Your task to perform on an android device: create a new album in the google photos Image 0: 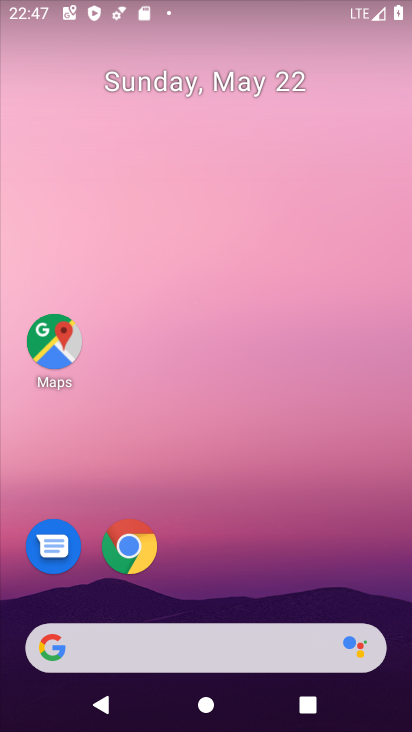
Step 0: drag from (207, 643) to (238, 26)
Your task to perform on an android device: create a new album in the google photos Image 1: 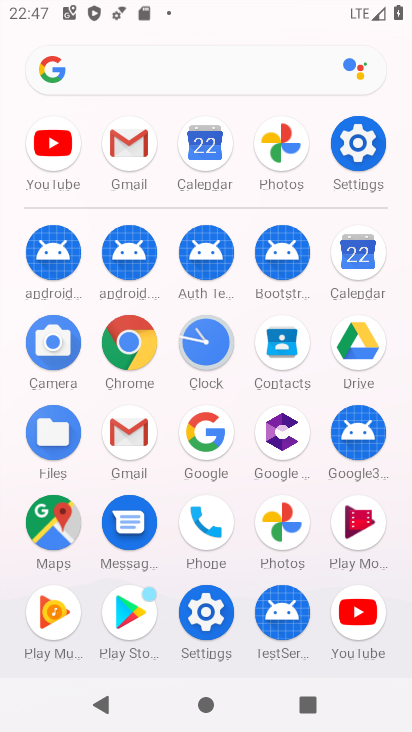
Step 1: click (271, 532)
Your task to perform on an android device: create a new album in the google photos Image 2: 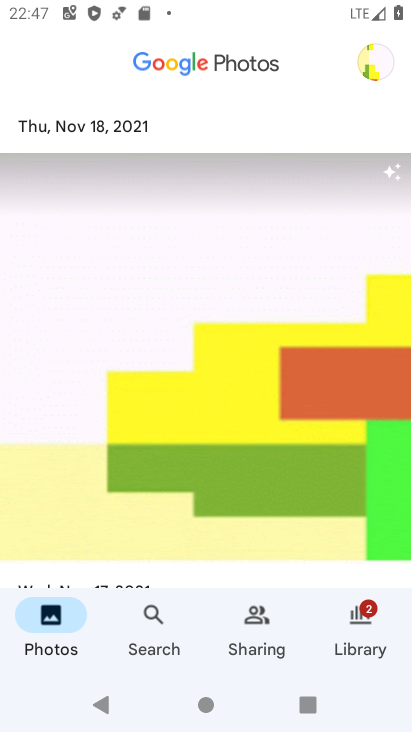
Step 2: press back button
Your task to perform on an android device: create a new album in the google photos Image 3: 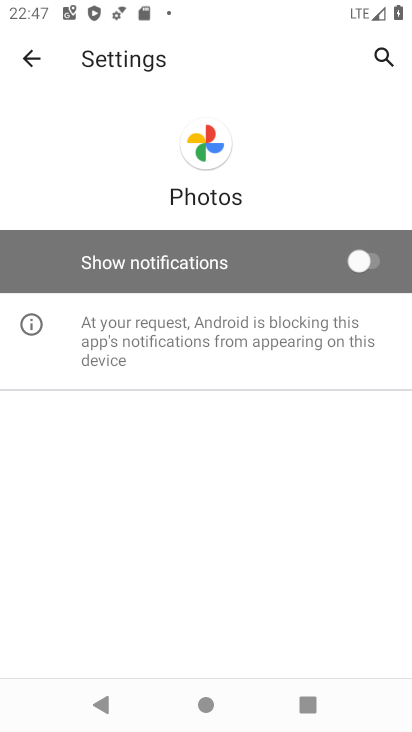
Step 3: press home button
Your task to perform on an android device: create a new album in the google photos Image 4: 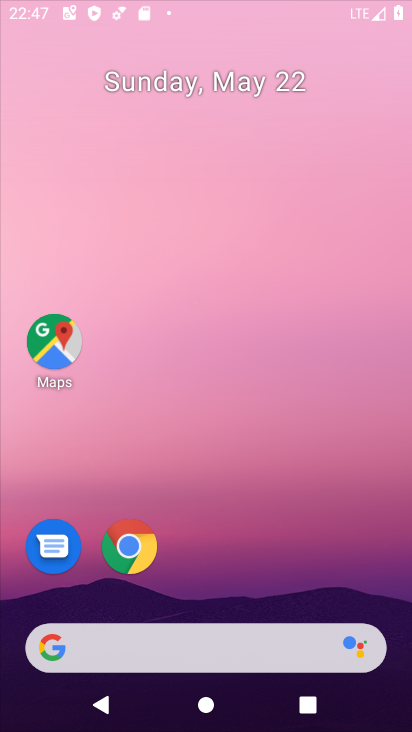
Step 4: drag from (167, 632) to (291, 94)
Your task to perform on an android device: create a new album in the google photos Image 5: 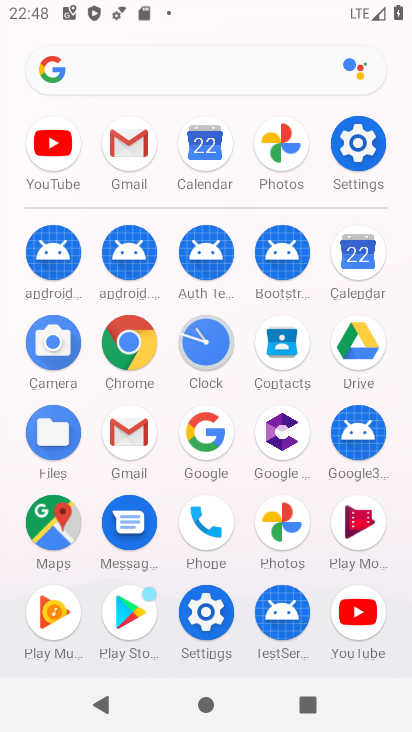
Step 5: click (278, 509)
Your task to perform on an android device: create a new album in the google photos Image 6: 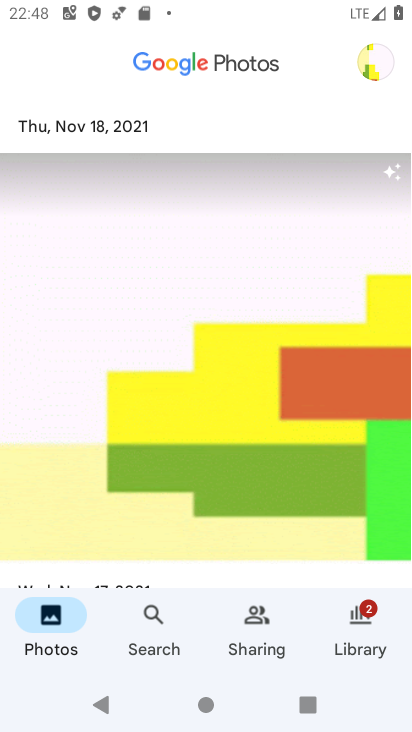
Step 6: click (353, 613)
Your task to perform on an android device: create a new album in the google photos Image 7: 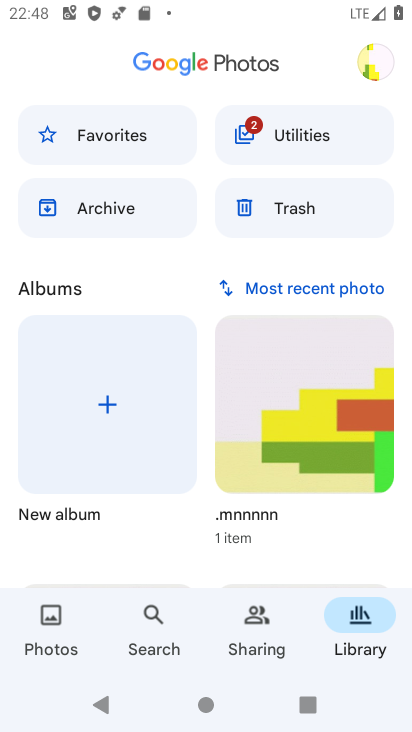
Step 7: click (108, 408)
Your task to perform on an android device: create a new album in the google photos Image 8: 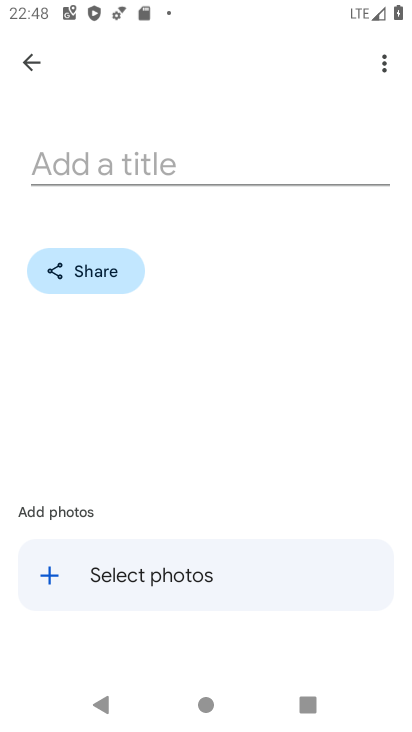
Step 8: click (133, 150)
Your task to perform on an android device: create a new album in the google photos Image 9: 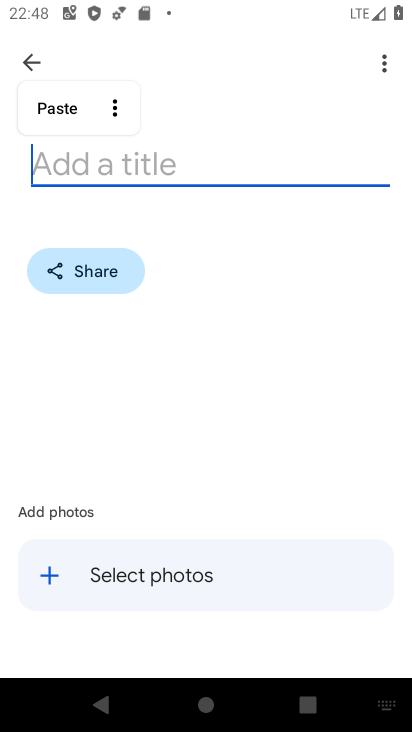
Step 9: type "jhknh"
Your task to perform on an android device: create a new album in the google photos Image 10: 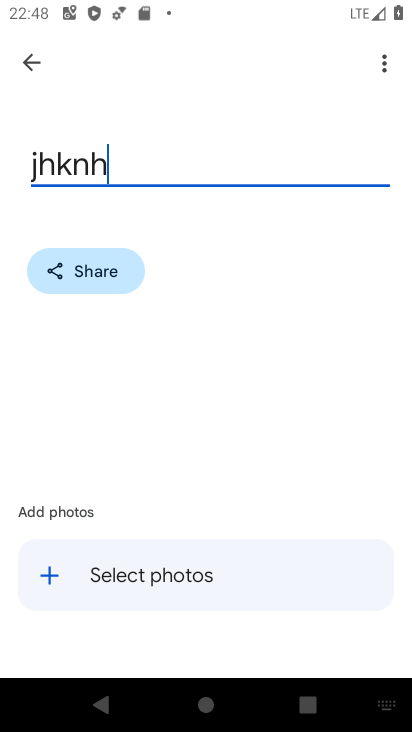
Step 10: click (44, 570)
Your task to perform on an android device: create a new album in the google photos Image 11: 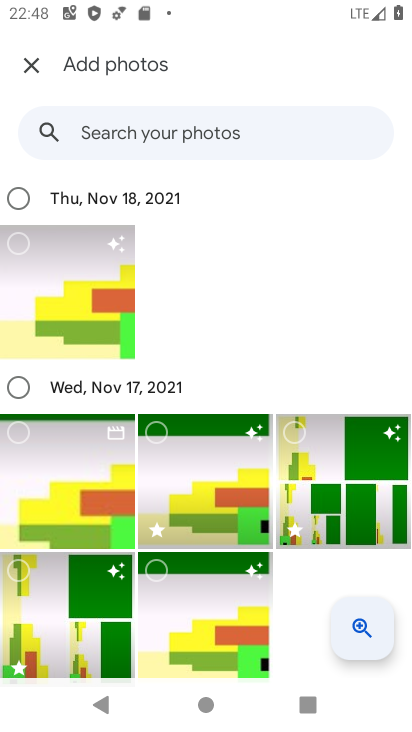
Step 11: click (64, 281)
Your task to perform on an android device: create a new album in the google photos Image 12: 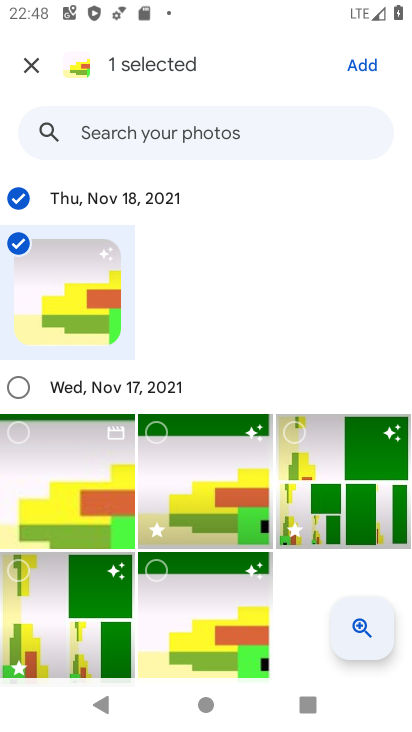
Step 12: click (171, 484)
Your task to perform on an android device: create a new album in the google photos Image 13: 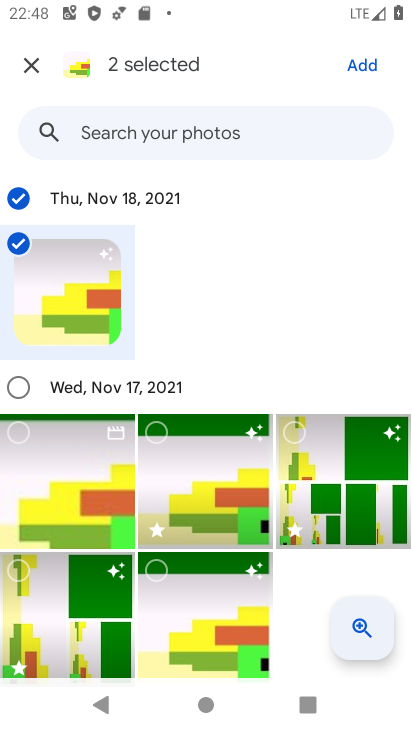
Step 13: click (376, 473)
Your task to perform on an android device: create a new album in the google photos Image 14: 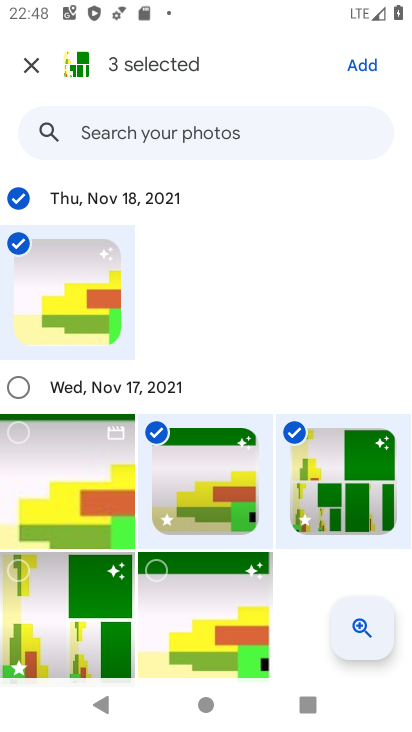
Step 14: click (367, 66)
Your task to perform on an android device: create a new album in the google photos Image 15: 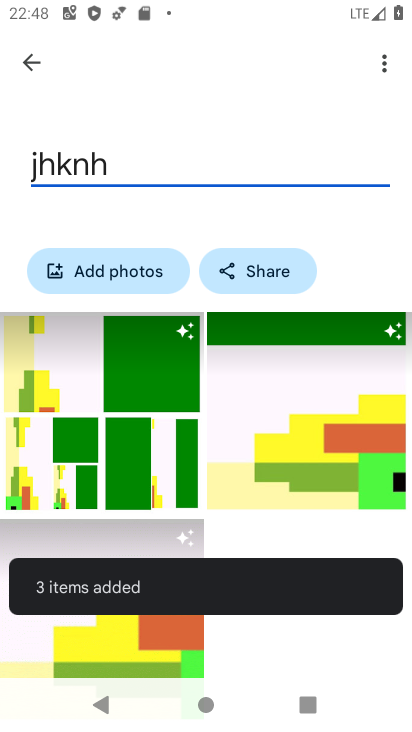
Step 15: task complete